Your task to perform on an android device: Open Google Chrome Image 0: 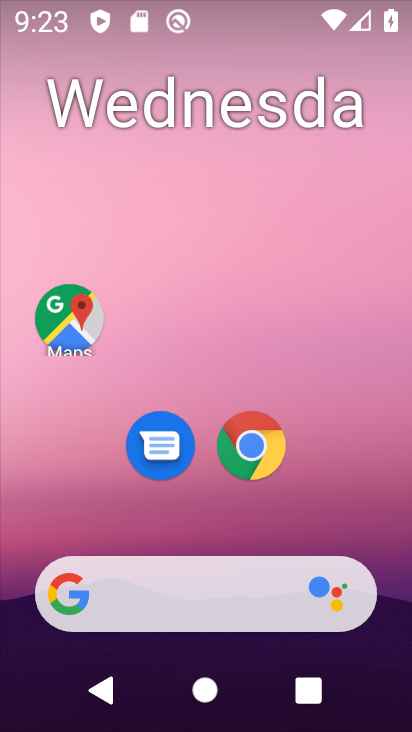
Step 0: click (271, 455)
Your task to perform on an android device: Open Google Chrome Image 1: 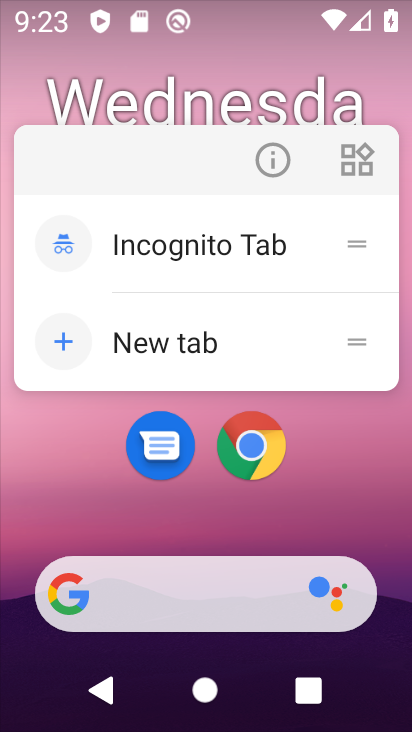
Step 1: click (254, 461)
Your task to perform on an android device: Open Google Chrome Image 2: 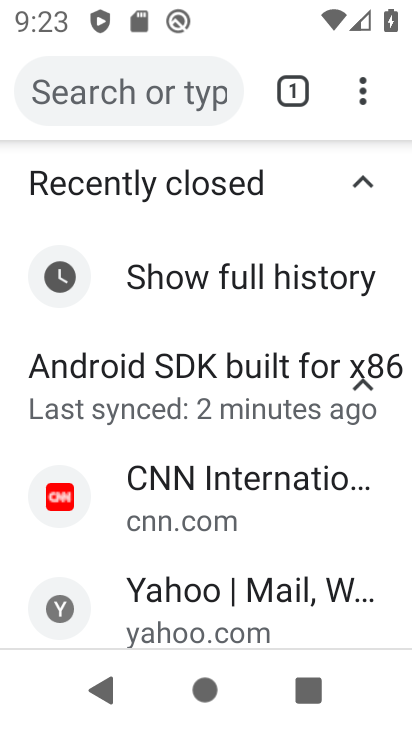
Step 2: task complete